Your task to perform on an android device: Search for Italian restaurants on Maps Image 0: 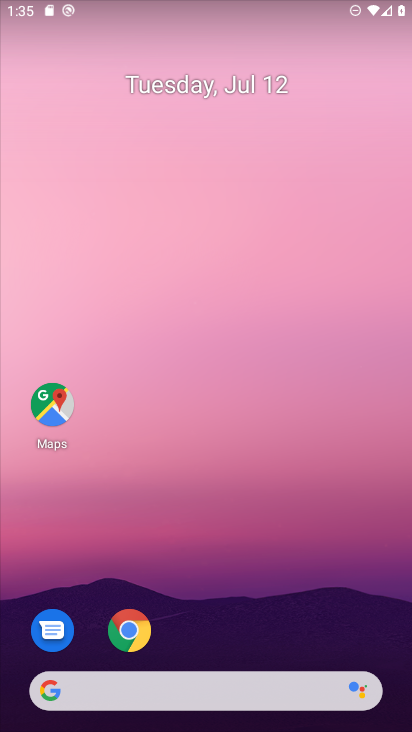
Step 0: click (51, 401)
Your task to perform on an android device: Search for Italian restaurants on Maps Image 1: 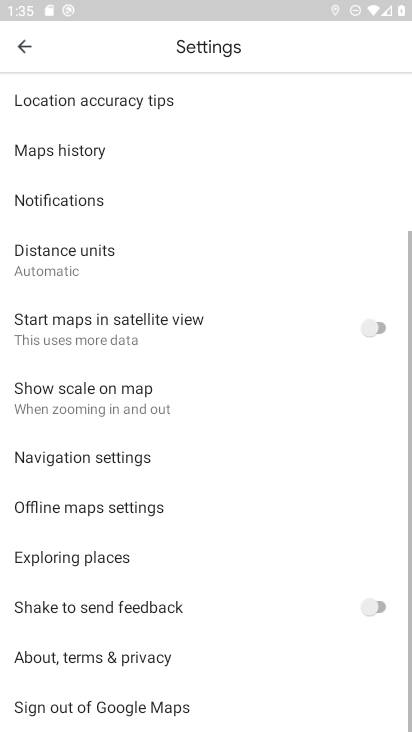
Step 1: press back button
Your task to perform on an android device: Search for Italian restaurants on Maps Image 2: 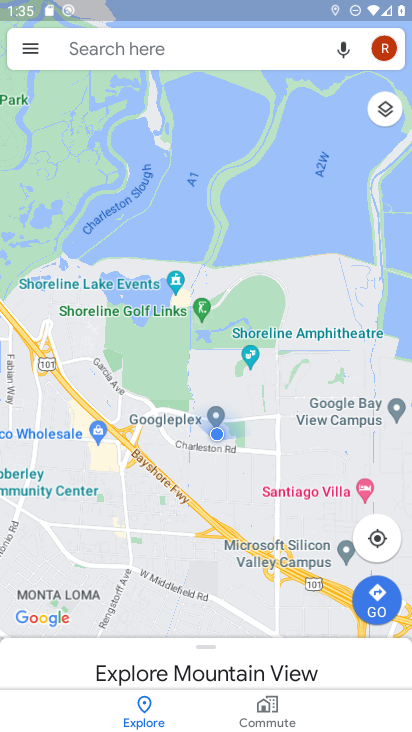
Step 2: click (133, 48)
Your task to perform on an android device: Search for Italian restaurants on Maps Image 3: 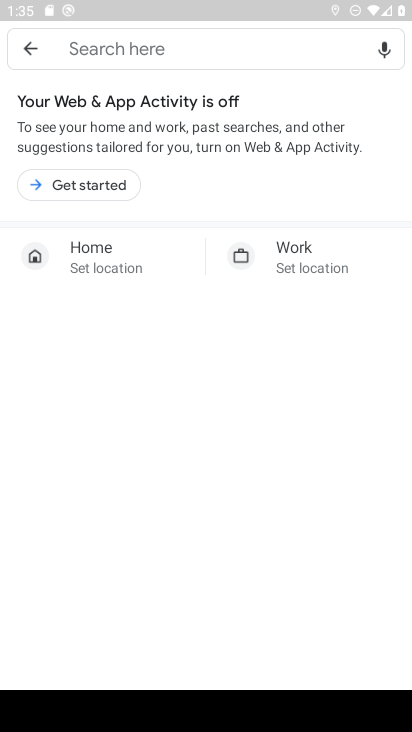
Step 3: type "italian restaurants"
Your task to perform on an android device: Search for Italian restaurants on Maps Image 4: 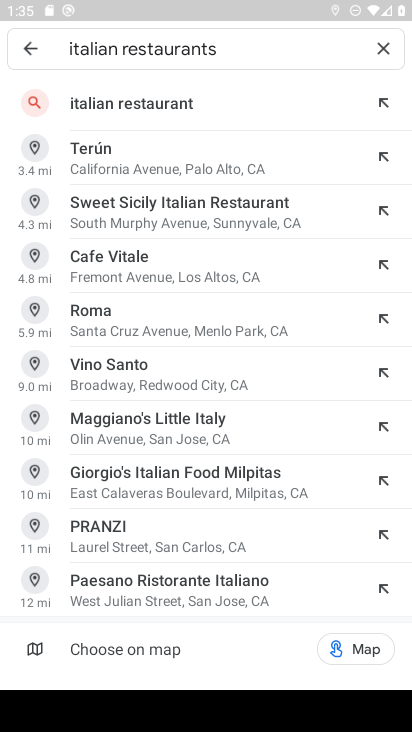
Step 4: click (135, 106)
Your task to perform on an android device: Search for Italian restaurants on Maps Image 5: 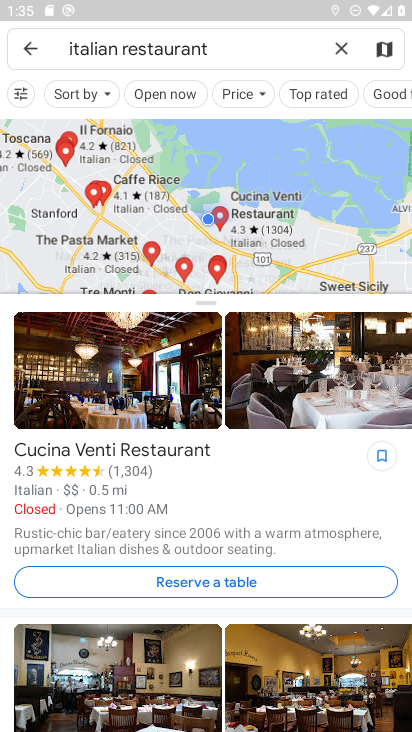
Step 5: task complete